Your task to perform on an android device: turn on sleep mode Image 0: 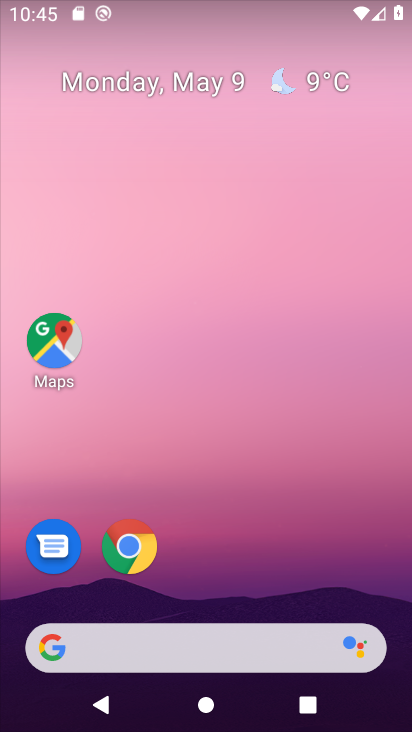
Step 0: drag from (228, 712) to (228, 227)
Your task to perform on an android device: turn on sleep mode Image 1: 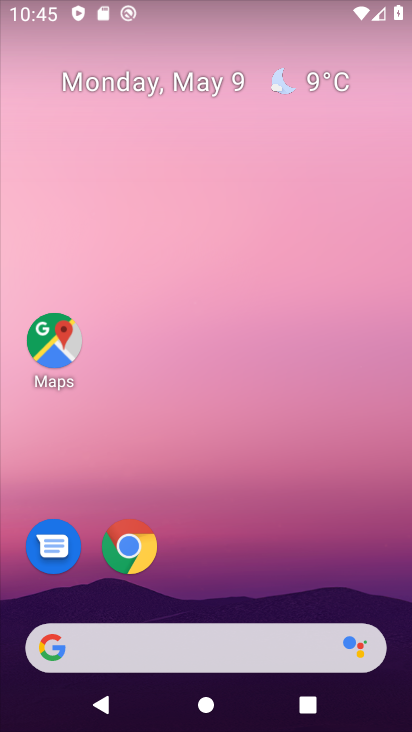
Step 1: drag from (229, 720) to (229, 138)
Your task to perform on an android device: turn on sleep mode Image 2: 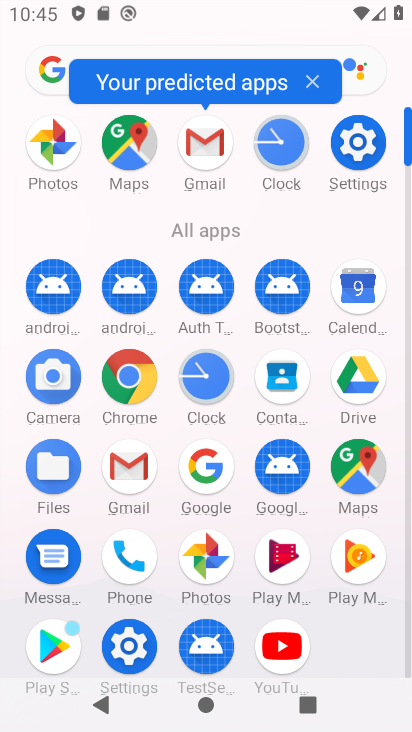
Step 2: click (358, 146)
Your task to perform on an android device: turn on sleep mode Image 3: 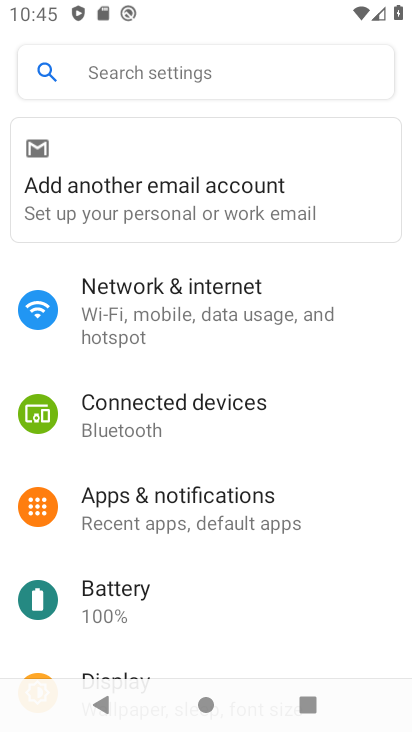
Step 3: task complete